Your task to perform on an android device: turn on sleep mode Image 0: 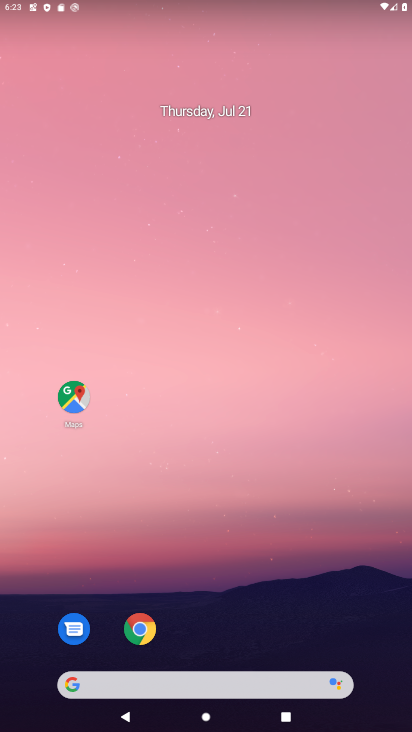
Step 0: drag from (206, 682) to (184, 307)
Your task to perform on an android device: turn on sleep mode Image 1: 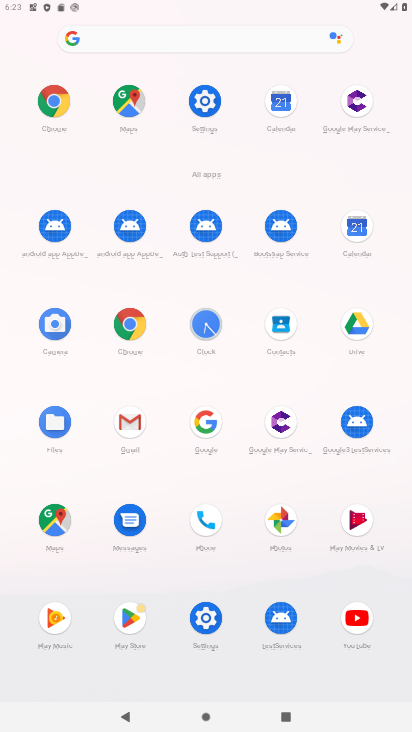
Step 1: click (205, 101)
Your task to perform on an android device: turn on sleep mode Image 2: 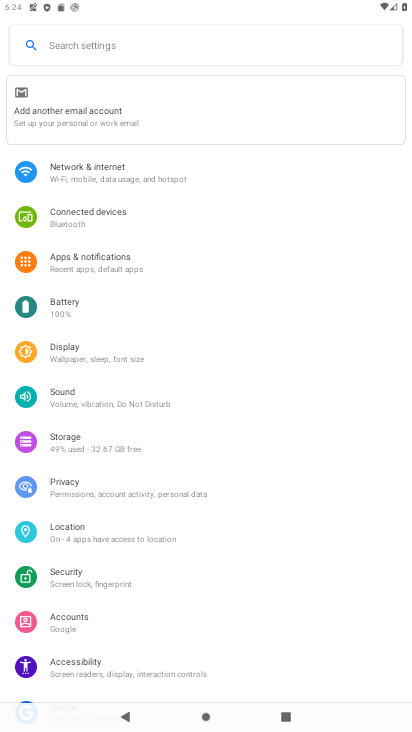
Step 2: click (98, 356)
Your task to perform on an android device: turn on sleep mode Image 3: 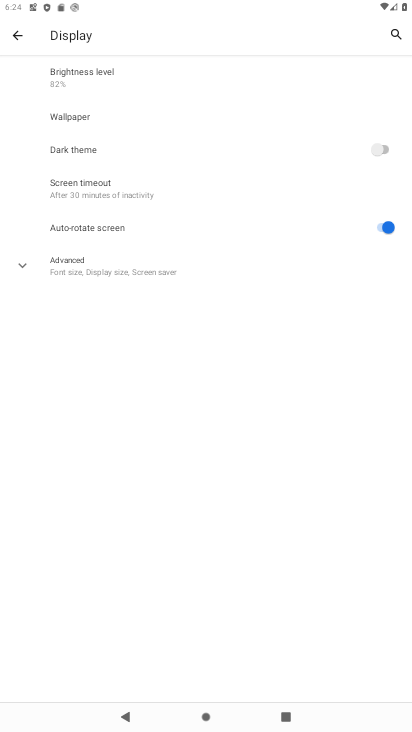
Step 3: click (96, 200)
Your task to perform on an android device: turn on sleep mode Image 4: 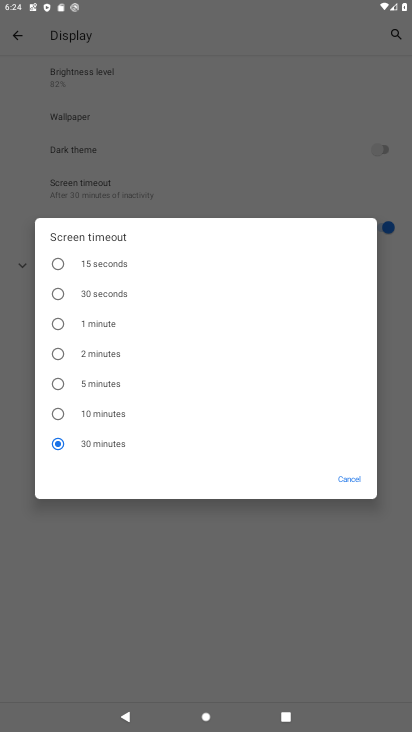
Step 4: click (356, 482)
Your task to perform on an android device: turn on sleep mode Image 5: 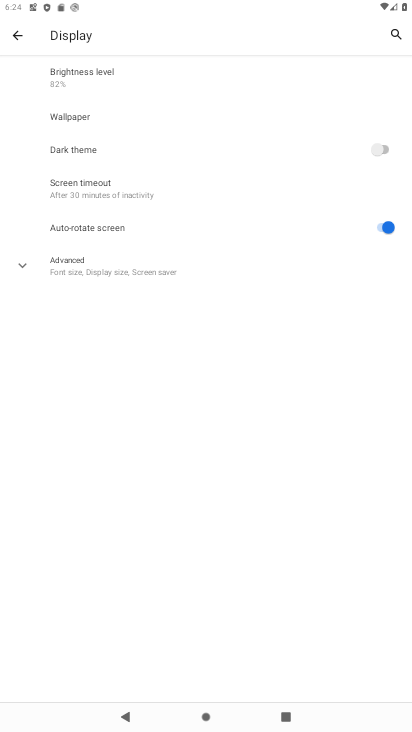
Step 5: task complete